Your task to perform on an android device: make emails show in primary in the gmail app Image 0: 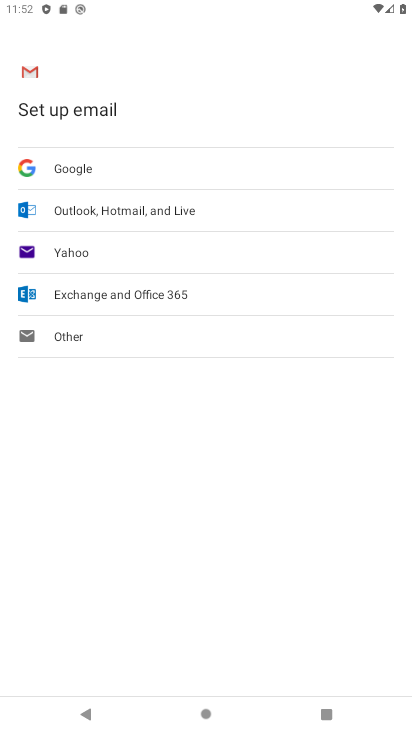
Step 0: press home button
Your task to perform on an android device: make emails show in primary in the gmail app Image 1: 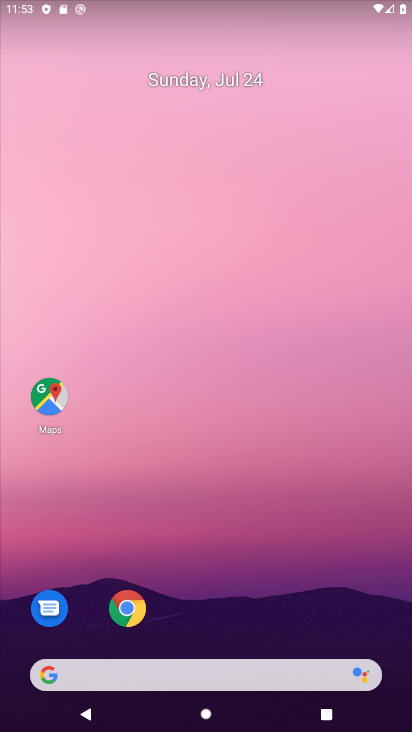
Step 1: drag from (59, 471) to (298, 111)
Your task to perform on an android device: make emails show in primary in the gmail app Image 2: 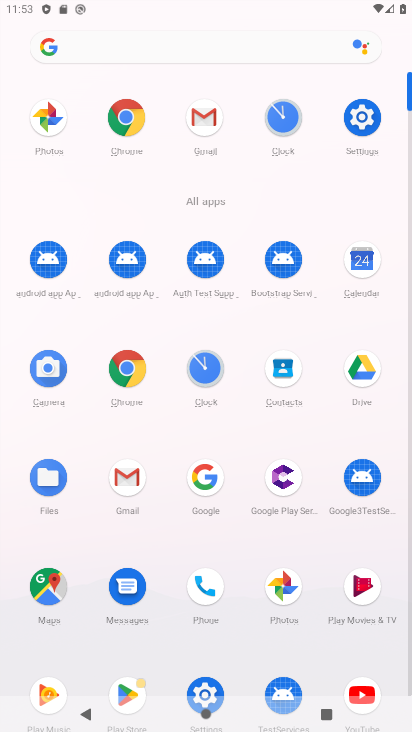
Step 2: click (211, 107)
Your task to perform on an android device: make emails show in primary in the gmail app Image 3: 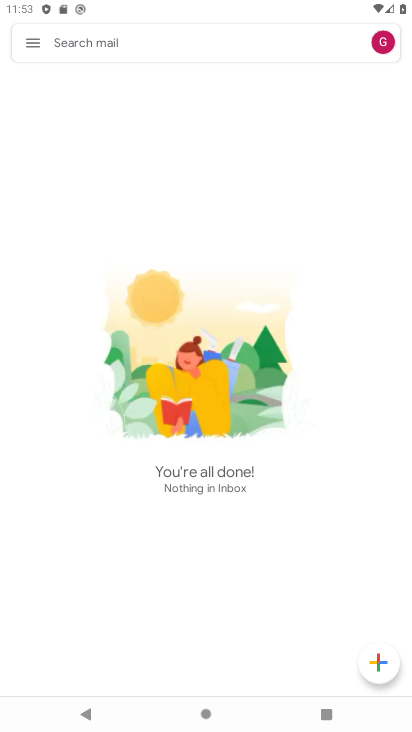
Step 3: click (26, 39)
Your task to perform on an android device: make emails show in primary in the gmail app Image 4: 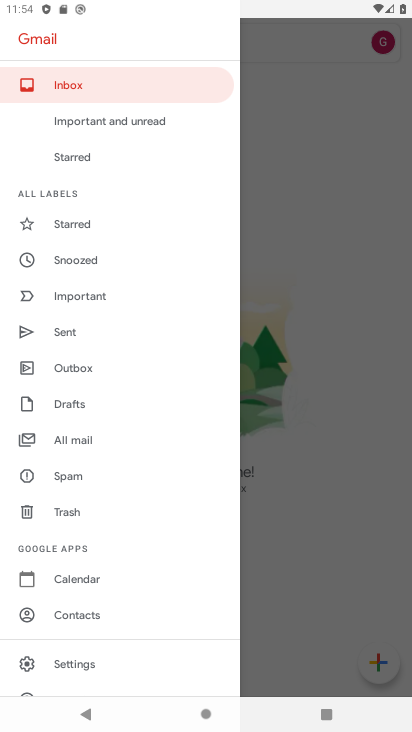
Step 4: task complete